Your task to perform on an android device: turn on javascript in the chrome app Image 0: 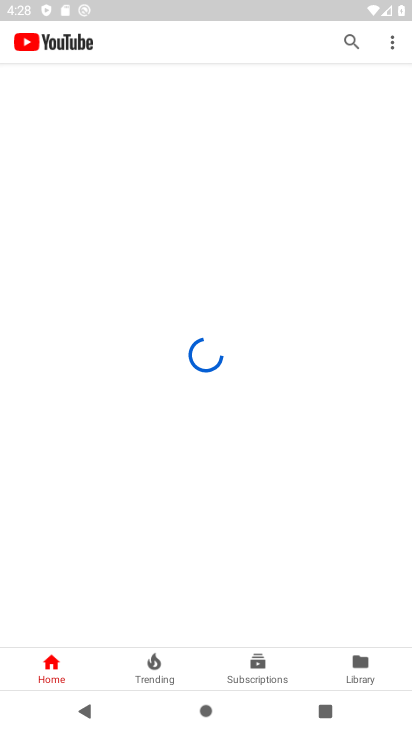
Step 0: press home button
Your task to perform on an android device: turn on javascript in the chrome app Image 1: 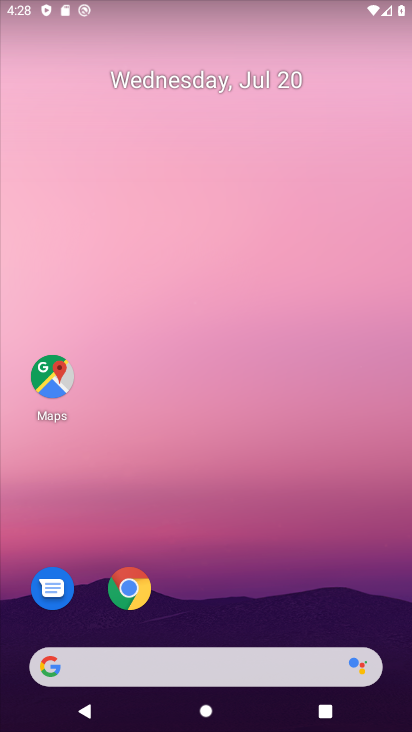
Step 1: click (136, 604)
Your task to perform on an android device: turn on javascript in the chrome app Image 2: 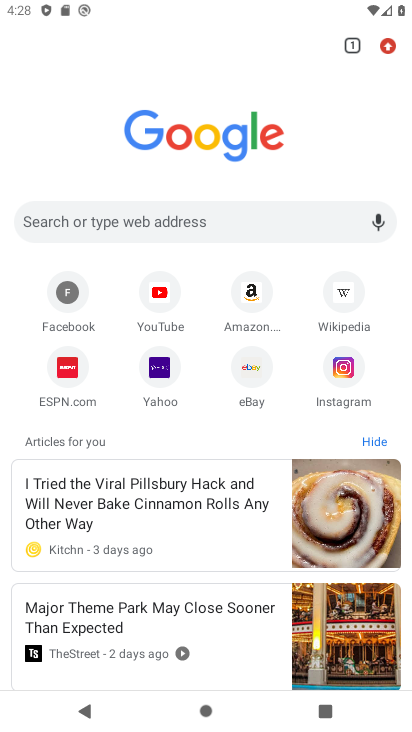
Step 2: click (388, 53)
Your task to perform on an android device: turn on javascript in the chrome app Image 3: 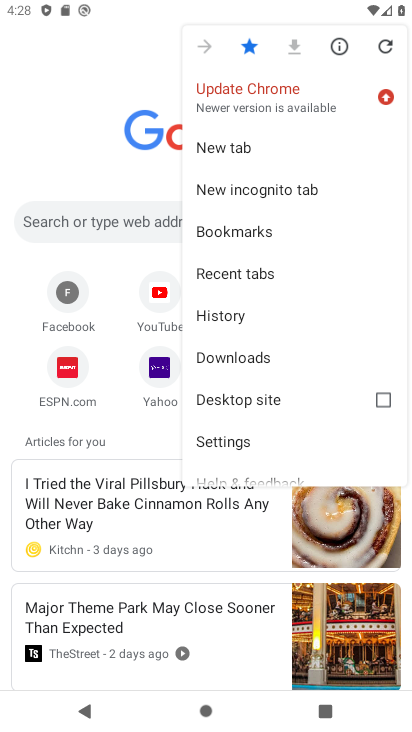
Step 3: click (256, 437)
Your task to perform on an android device: turn on javascript in the chrome app Image 4: 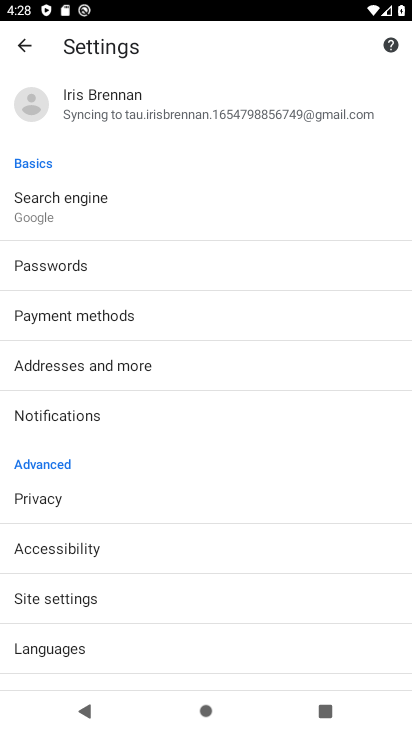
Step 4: click (159, 603)
Your task to perform on an android device: turn on javascript in the chrome app Image 5: 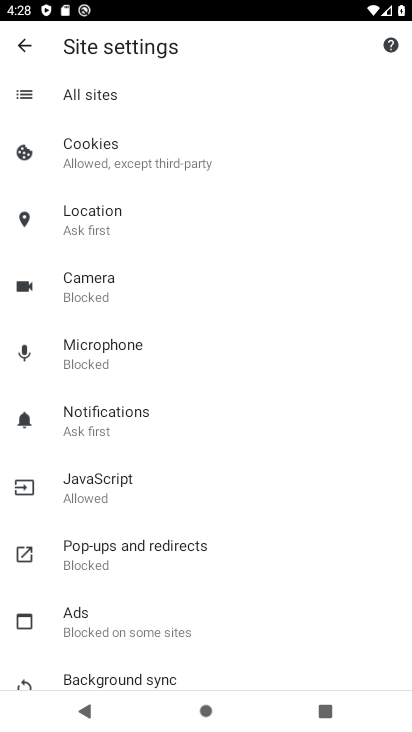
Step 5: click (168, 501)
Your task to perform on an android device: turn on javascript in the chrome app Image 6: 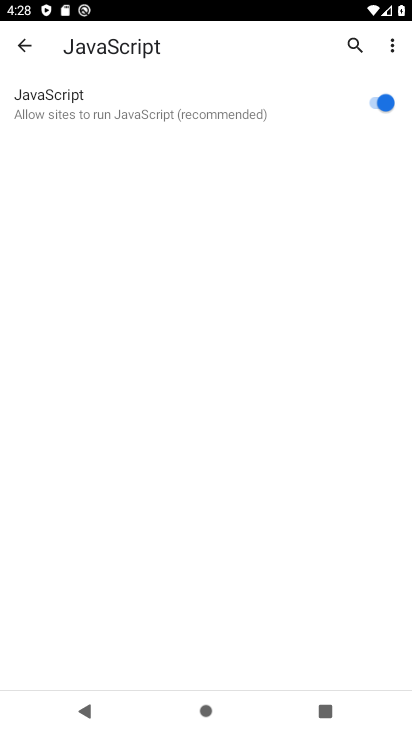
Step 6: task complete